Your task to perform on an android device: turn off priority inbox in the gmail app Image 0: 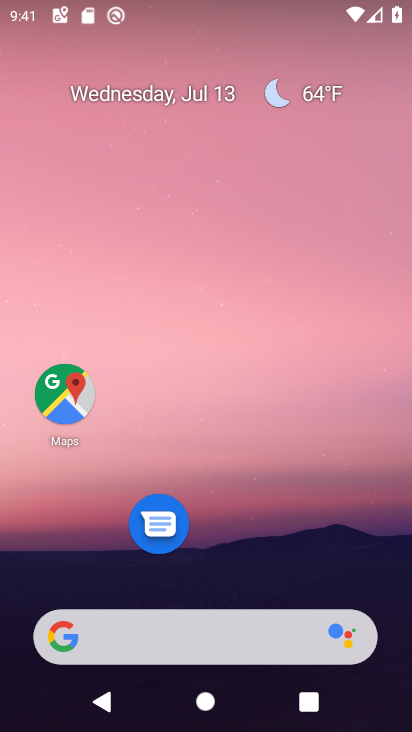
Step 0: drag from (220, 578) to (363, 207)
Your task to perform on an android device: turn off priority inbox in the gmail app Image 1: 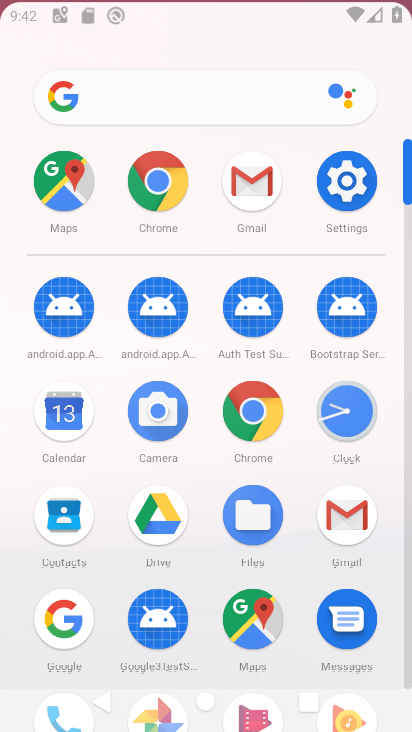
Step 1: click (330, 498)
Your task to perform on an android device: turn off priority inbox in the gmail app Image 2: 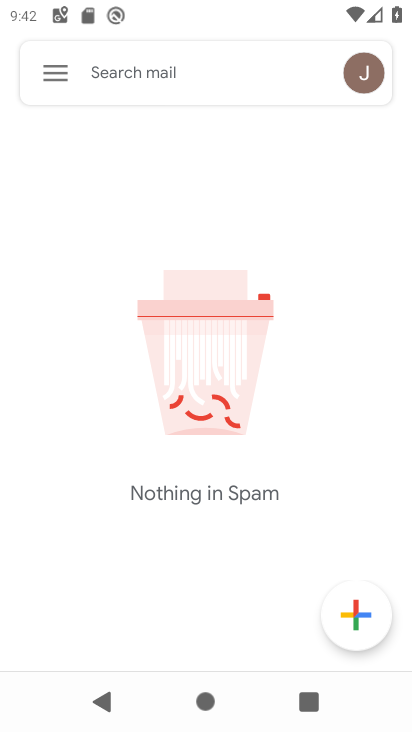
Step 2: click (53, 76)
Your task to perform on an android device: turn off priority inbox in the gmail app Image 3: 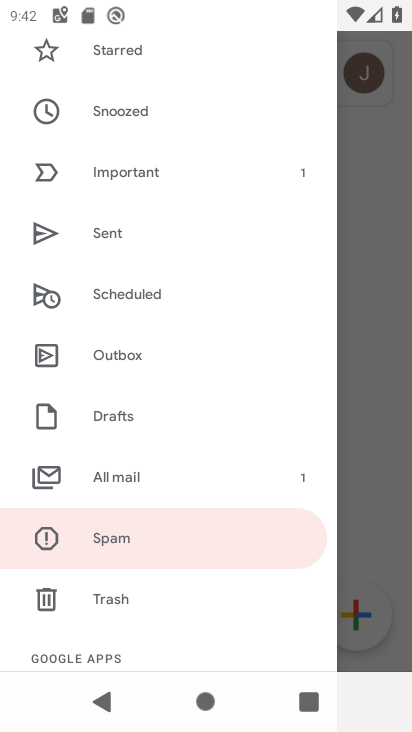
Step 3: drag from (119, 634) to (14, 71)
Your task to perform on an android device: turn off priority inbox in the gmail app Image 4: 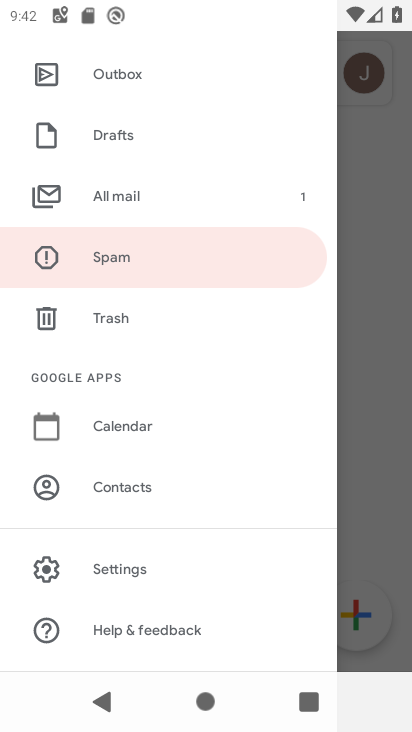
Step 4: click (117, 567)
Your task to perform on an android device: turn off priority inbox in the gmail app Image 5: 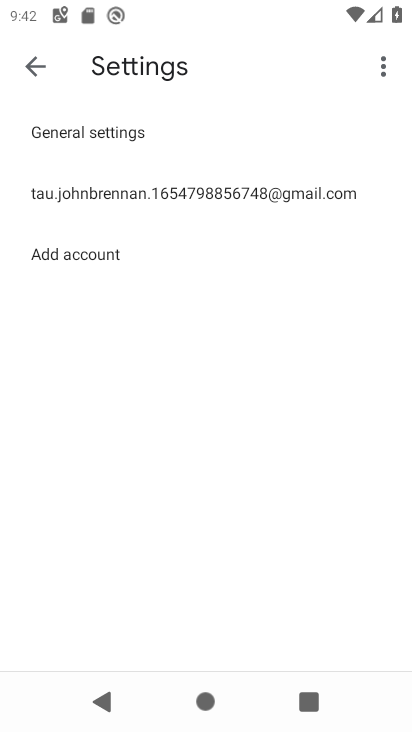
Step 5: click (159, 201)
Your task to perform on an android device: turn off priority inbox in the gmail app Image 6: 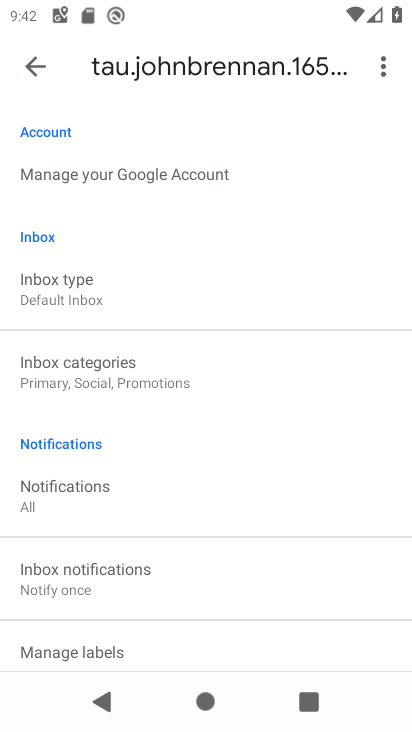
Step 6: click (46, 303)
Your task to perform on an android device: turn off priority inbox in the gmail app Image 7: 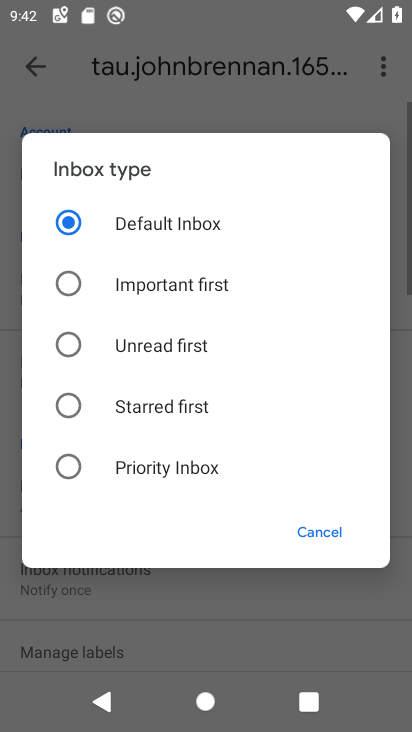
Step 7: task complete